Your task to perform on an android device: see tabs open on other devices in the chrome app Image 0: 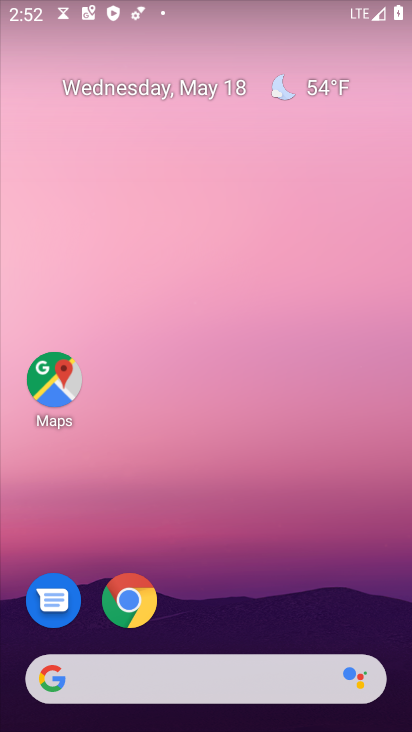
Step 0: press home button
Your task to perform on an android device: see tabs open on other devices in the chrome app Image 1: 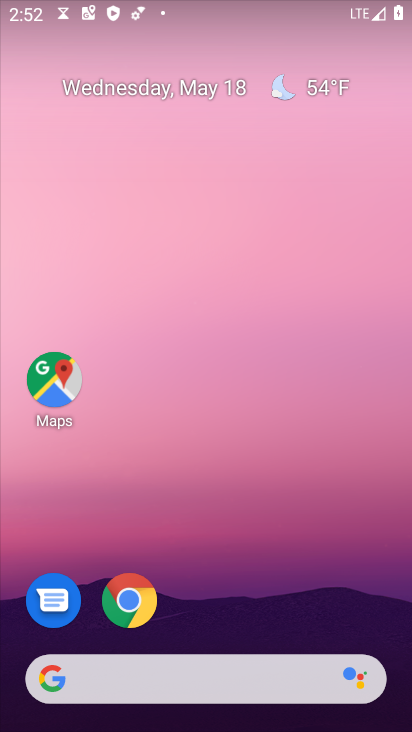
Step 1: drag from (131, 665) to (255, 273)
Your task to perform on an android device: see tabs open on other devices in the chrome app Image 2: 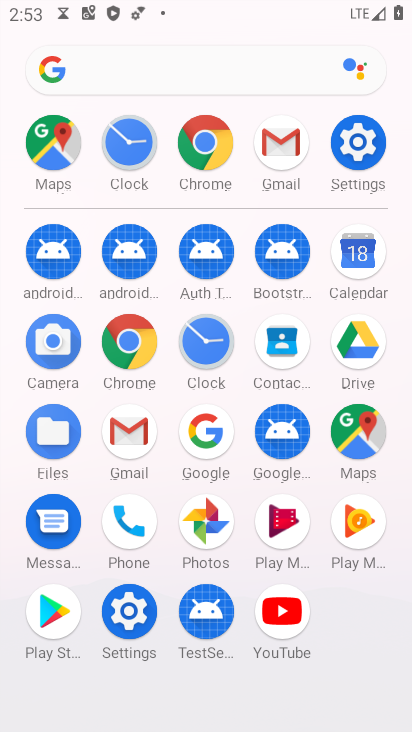
Step 2: click (198, 144)
Your task to perform on an android device: see tabs open on other devices in the chrome app Image 3: 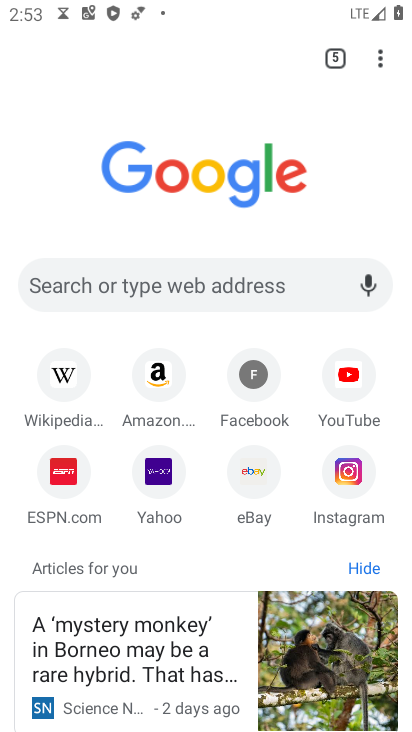
Step 3: task complete